Your task to perform on an android device: Open sound settings Image 0: 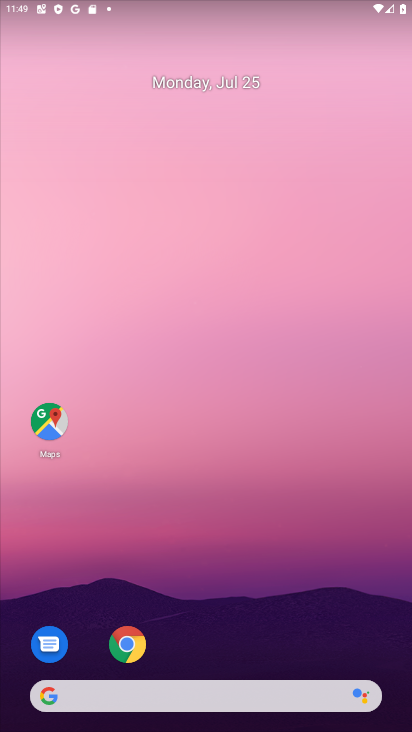
Step 0: drag from (230, 674) to (194, 0)
Your task to perform on an android device: Open sound settings Image 1: 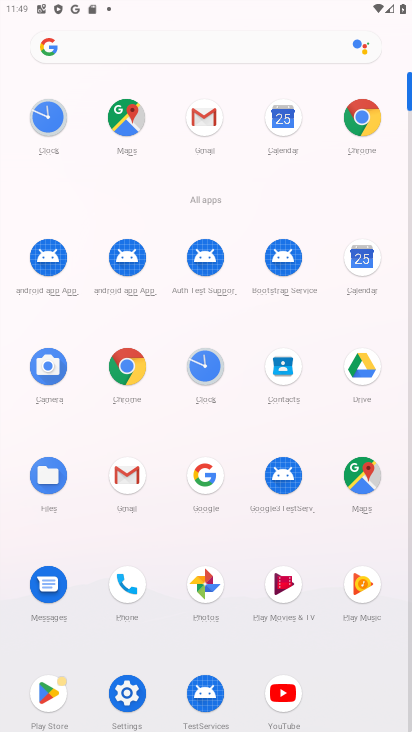
Step 1: click (122, 687)
Your task to perform on an android device: Open sound settings Image 2: 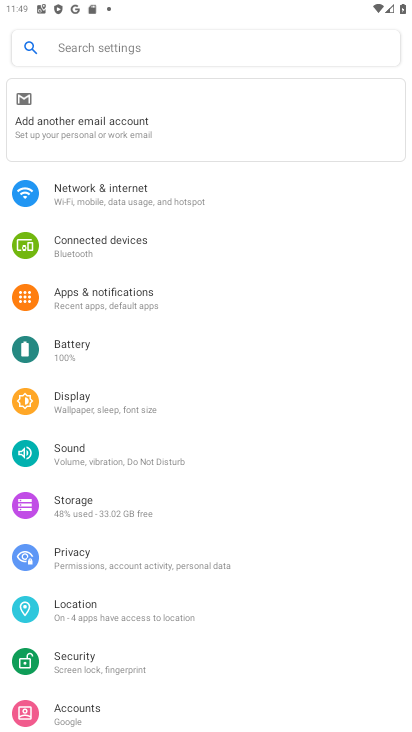
Step 2: click (75, 458)
Your task to perform on an android device: Open sound settings Image 3: 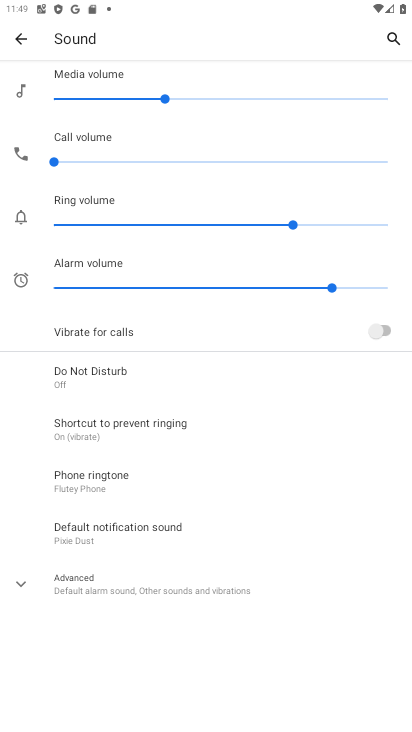
Step 3: task complete